Your task to perform on an android device: Open ESPN.com Image 0: 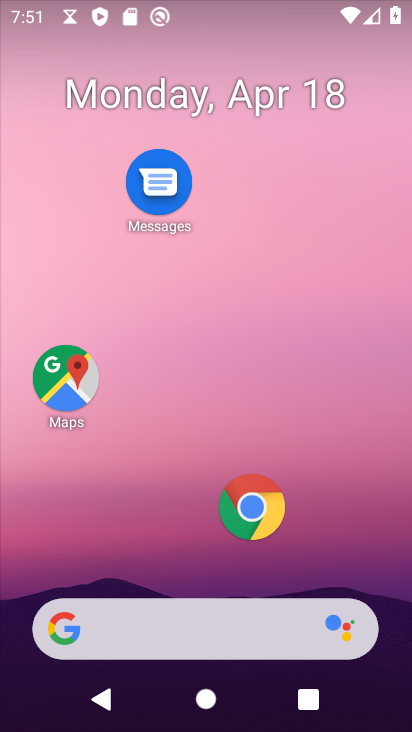
Step 0: click (200, 601)
Your task to perform on an android device: Open ESPN.com Image 1: 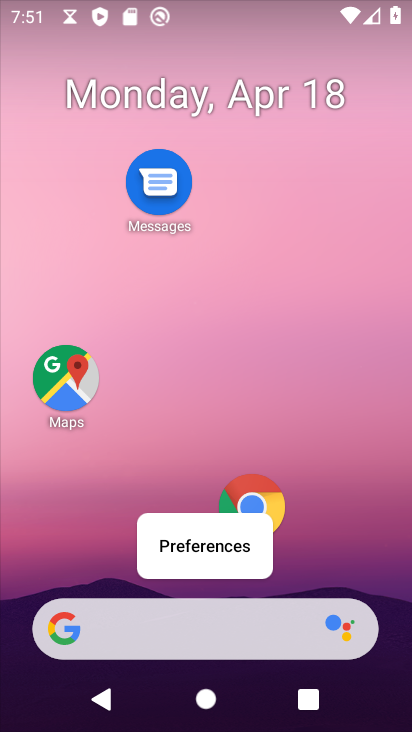
Step 1: click (257, 505)
Your task to perform on an android device: Open ESPN.com Image 2: 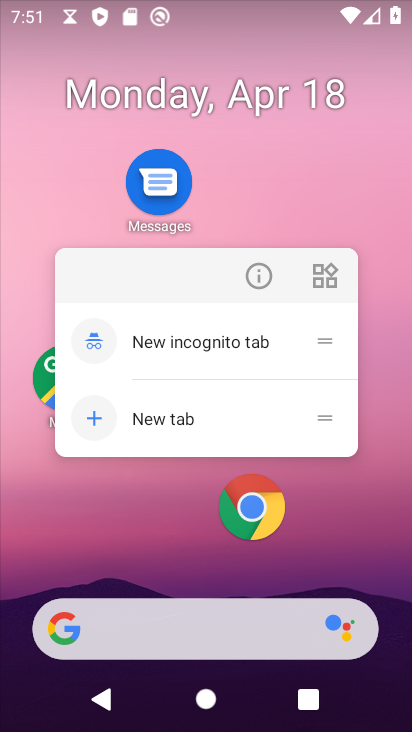
Step 2: click (257, 502)
Your task to perform on an android device: Open ESPN.com Image 3: 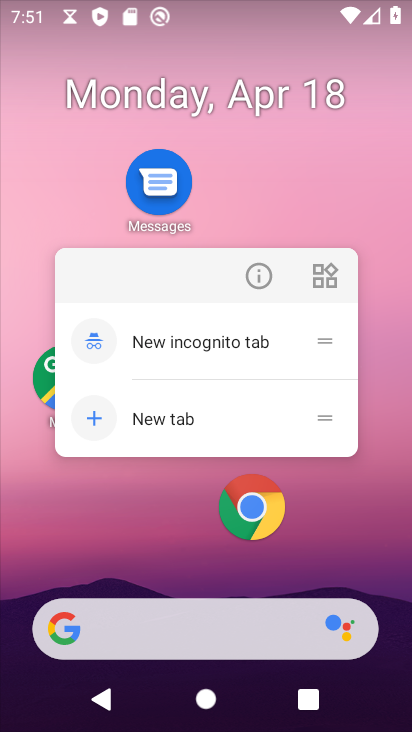
Step 3: click (257, 502)
Your task to perform on an android device: Open ESPN.com Image 4: 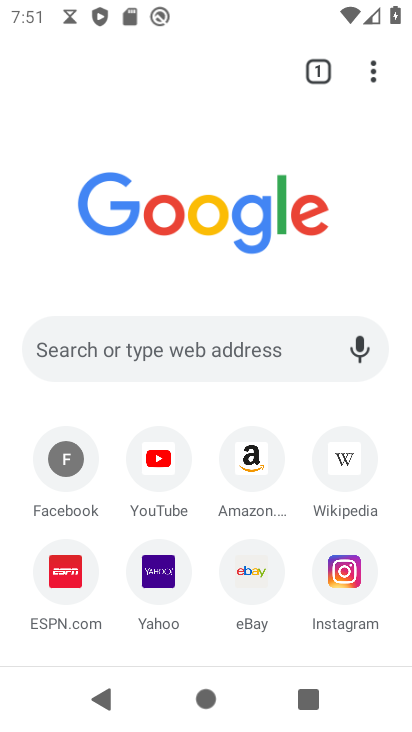
Step 4: click (169, 346)
Your task to perform on an android device: Open ESPN.com Image 5: 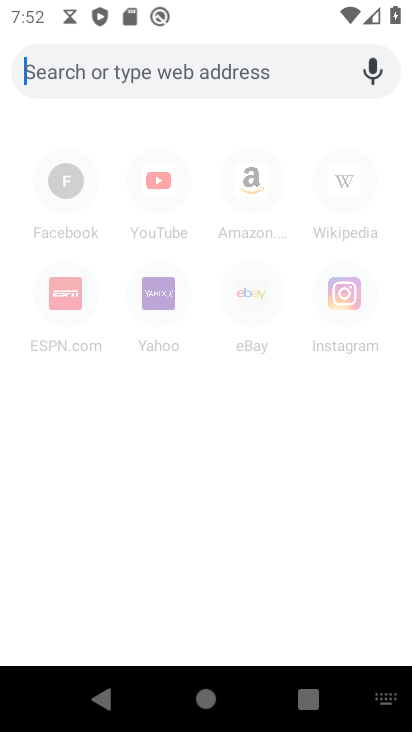
Step 5: type "ESPN.com"
Your task to perform on an android device: Open ESPN.com Image 6: 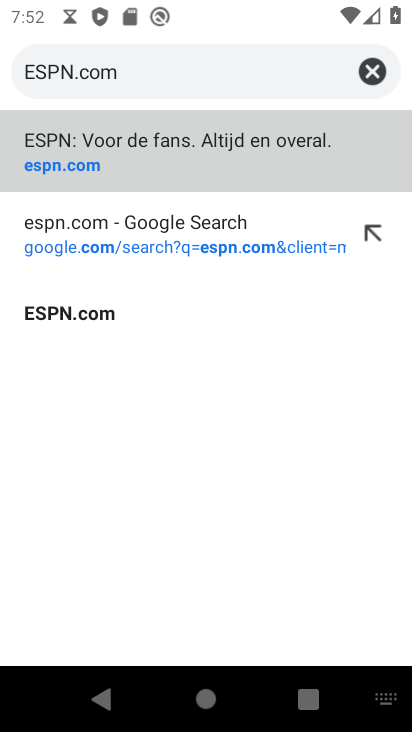
Step 6: click (67, 315)
Your task to perform on an android device: Open ESPN.com Image 7: 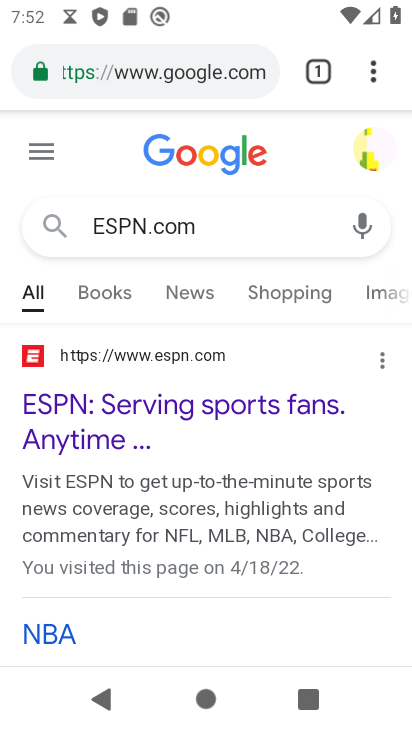
Step 7: click (100, 434)
Your task to perform on an android device: Open ESPN.com Image 8: 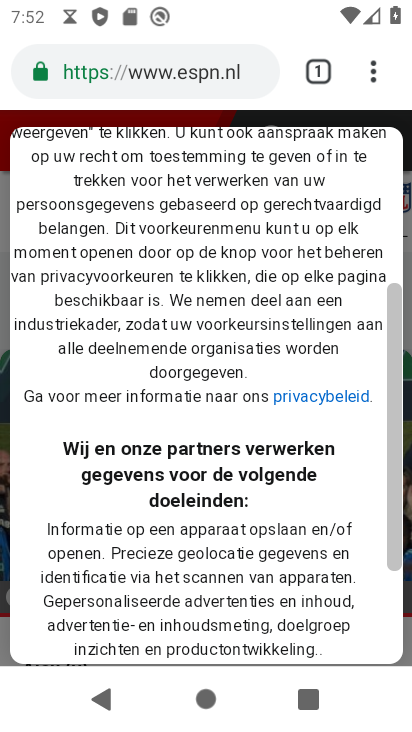
Step 8: task complete